Your task to perform on an android device: open sync settings in chrome Image 0: 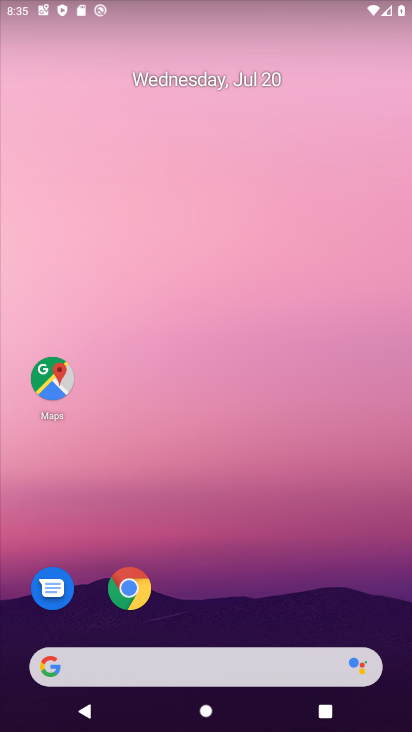
Step 0: click (127, 602)
Your task to perform on an android device: open sync settings in chrome Image 1: 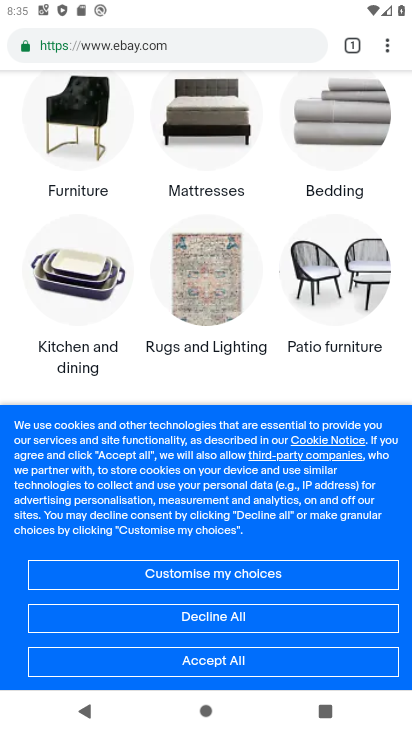
Step 1: click (394, 48)
Your task to perform on an android device: open sync settings in chrome Image 2: 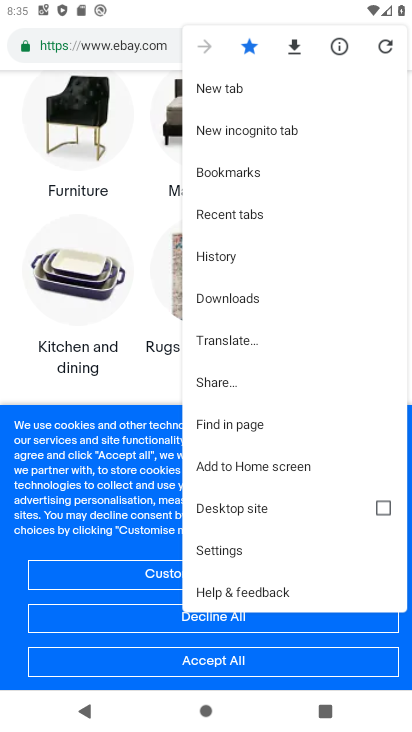
Step 2: click (253, 537)
Your task to perform on an android device: open sync settings in chrome Image 3: 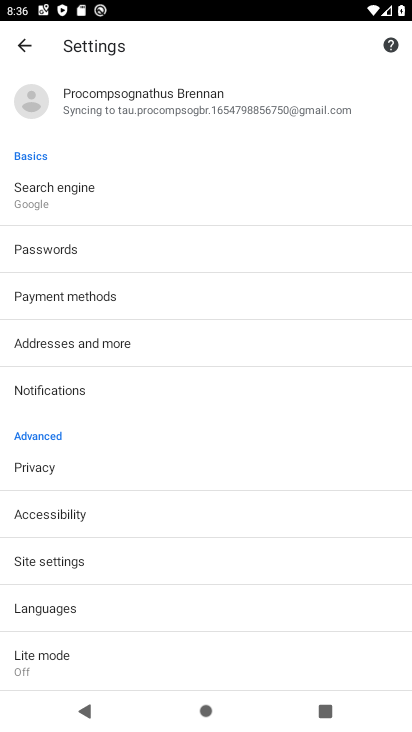
Step 3: click (199, 106)
Your task to perform on an android device: open sync settings in chrome Image 4: 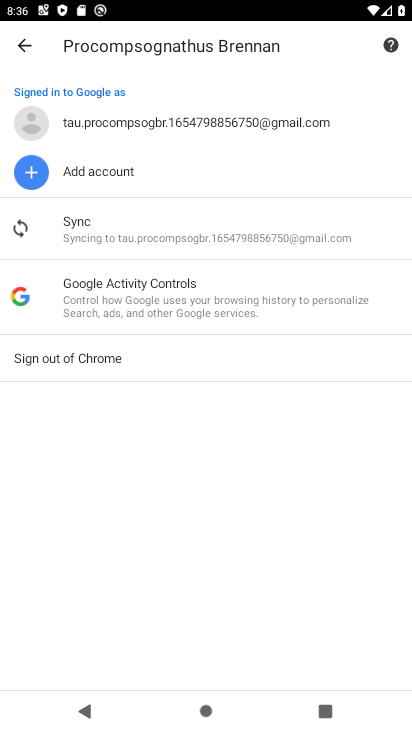
Step 4: click (143, 219)
Your task to perform on an android device: open sync settings in chrome Image 5: 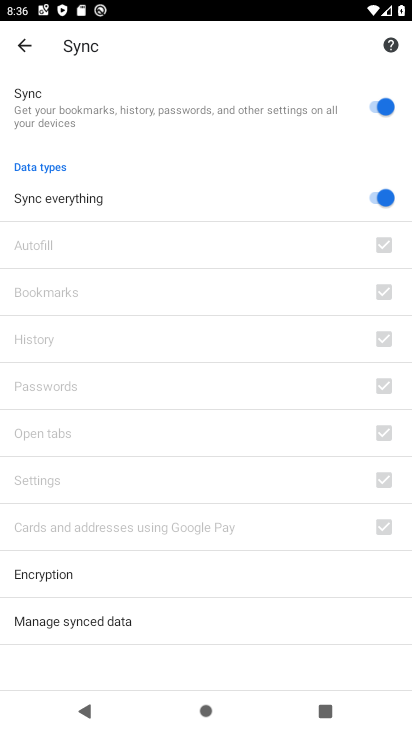
Step 5: task complete